Your task to perform on an android device: search for starred emails in the gmail app Image 0: 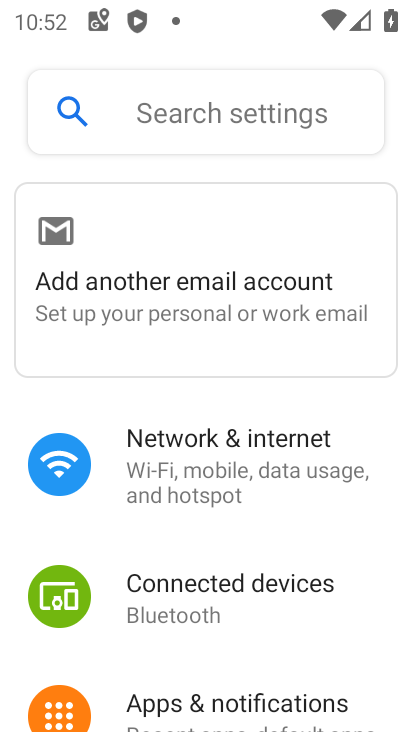
Step 0: press home button
Your task to perform on an android device: search for starred emails in the gmail app Image 1: 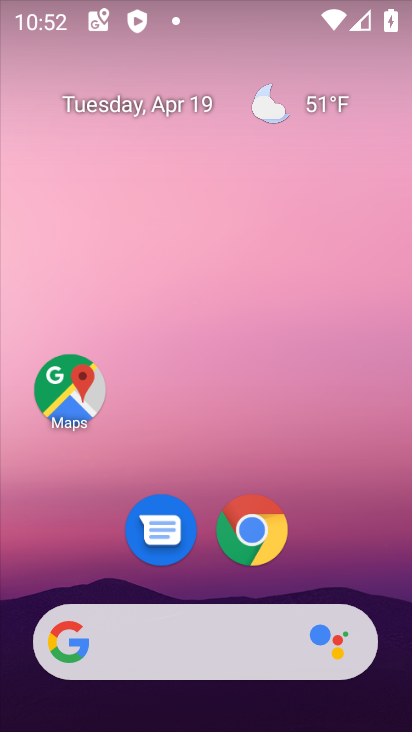
Step 1: drag from (365, 531) to (341, 130)
Your task to perform on an android device: search for starred emails in the gmail app Image 2: 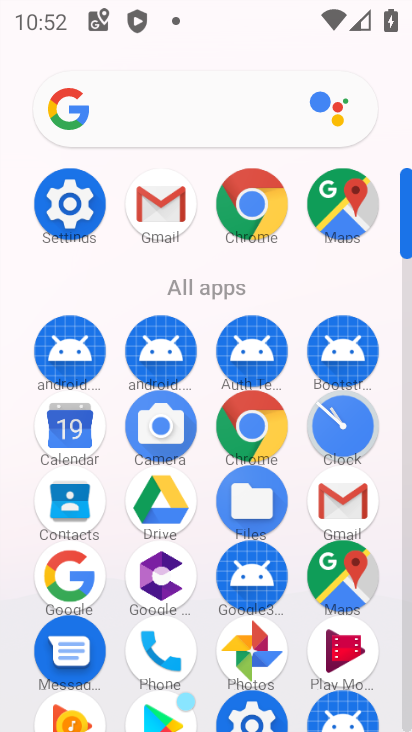
Step 2: click (155, 201)
Your task to perform on an android device: search for starred emails in the gmail app Image 3: 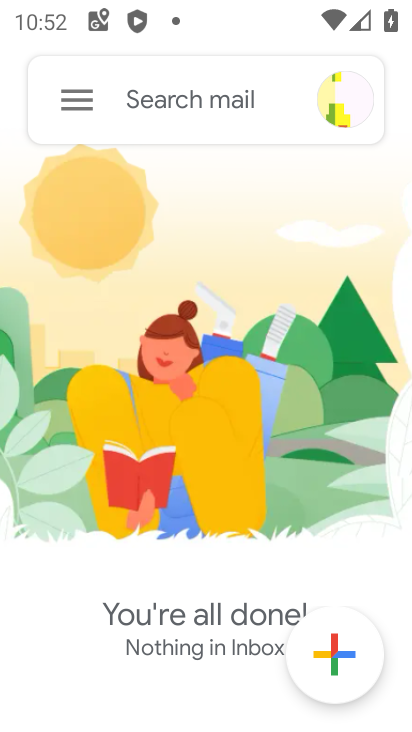
Step 3: click (77, 100)
Your task to perform on an android device: search for starred emails in the gmail app Image 4: 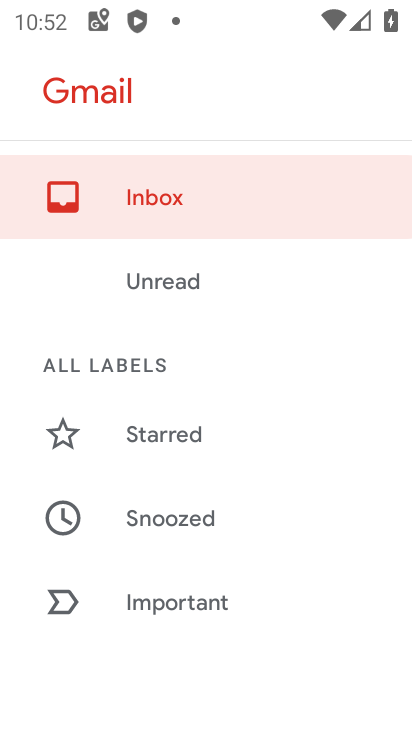
Step 4: click (137, 430)
Your task to perform on an android device: search for starred emails in the gmail app Image 5: 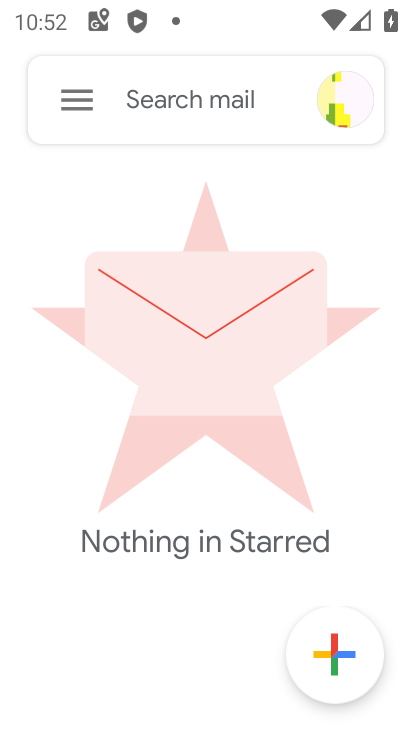
Step 5: task complete